Your task to perform on an android device: Go to CNN.com Image 0: 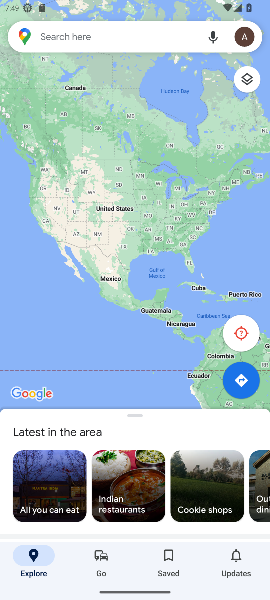
Step 0: press home button
Your task to perform on an android device: Go to CNN.com Image 1: 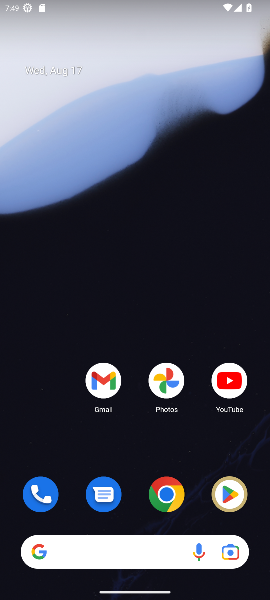
Step 1: drag from (146, 508) to (193, 10)
Your task to perform on an android device: Go to CNN.com Image 2: 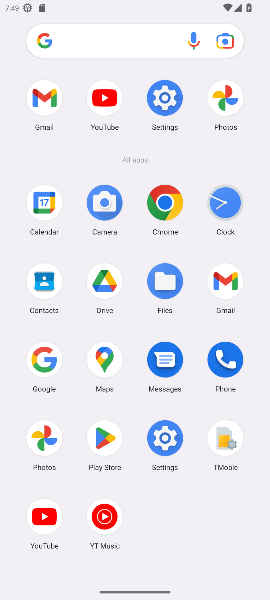
Step 2: click (158, 213)
Your task to perform on an android device: Go to CNN.com Image 3: 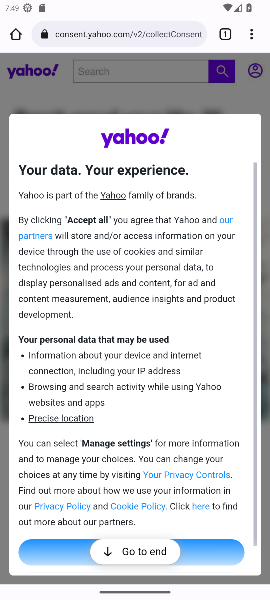
Step 3: click (170, 31)
Your task to perform on an android device: Go to CNN.com Image 4: 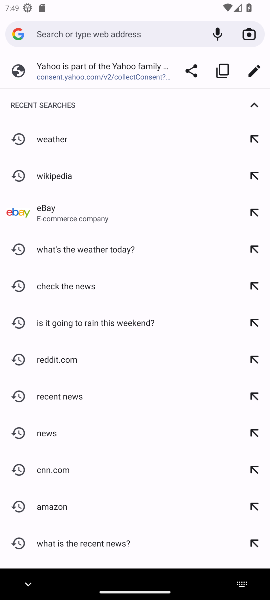
Step 4: type "CNN.com"
Your task to perform on an android device: Go to CNN.com Image 5: 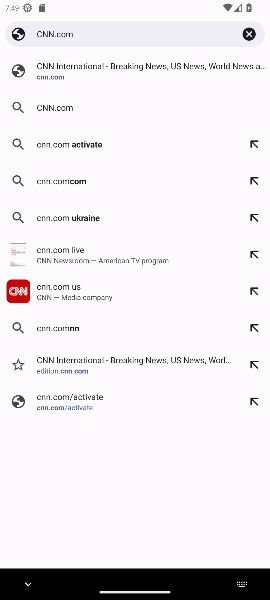
Step 5: click (80, 72)
Your task to perform on an android device: Go to CNN.com Image 6: 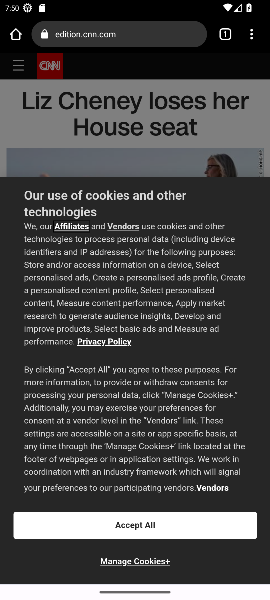
Step 6: task complete